Your task to perform on an android device: Open Google Chrome and open the bookmarks view Image 0: 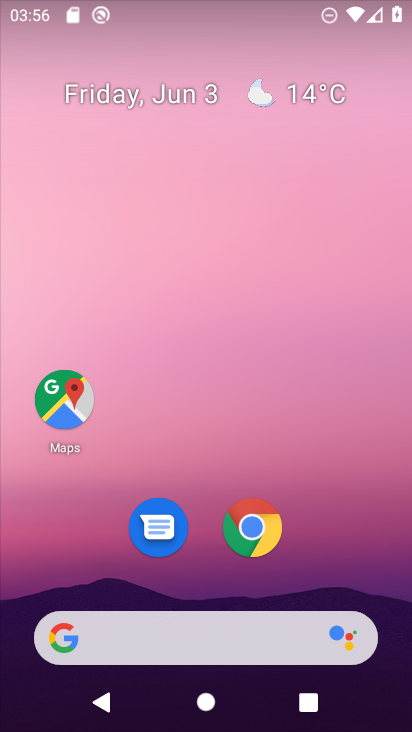
Step 0: click (252, 526)
Your task to perform on an android device: Open Google Chrome and open the bookmarks view Image 1: 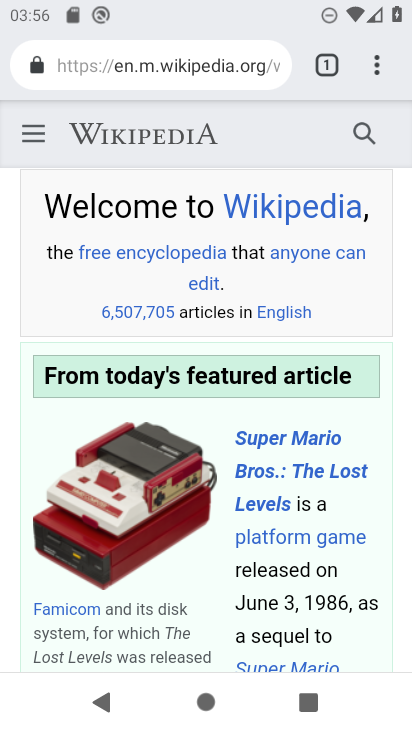
Step 1: click (377, 64)
Your task to perform on an android device: Open Google Chrome and open the bookmarks view Image 2: 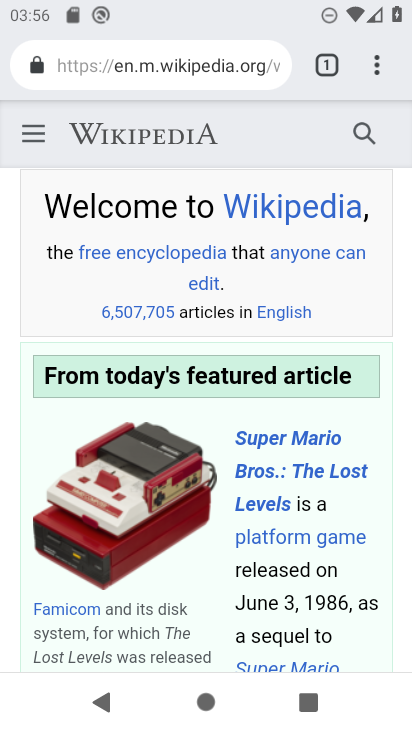
Step 2: click (377, 64)
Your task to perform on an android device: Open Google Chrome and open the bookmarks view Image 3: 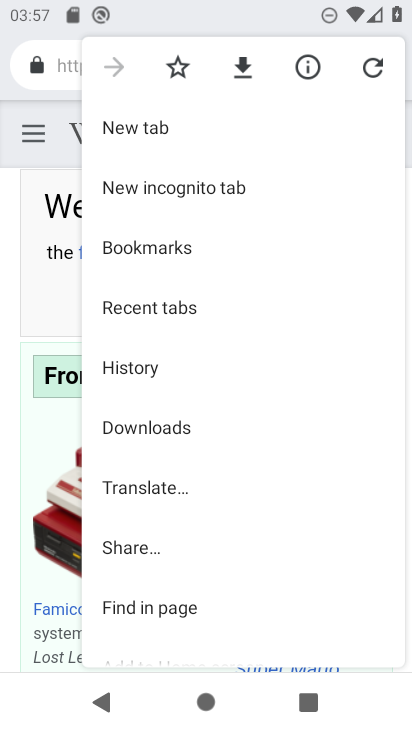
Step 3: click (157, 249)
Your task to perform on an android device: Open Google Chrome and open the bookmarks view Image 4: 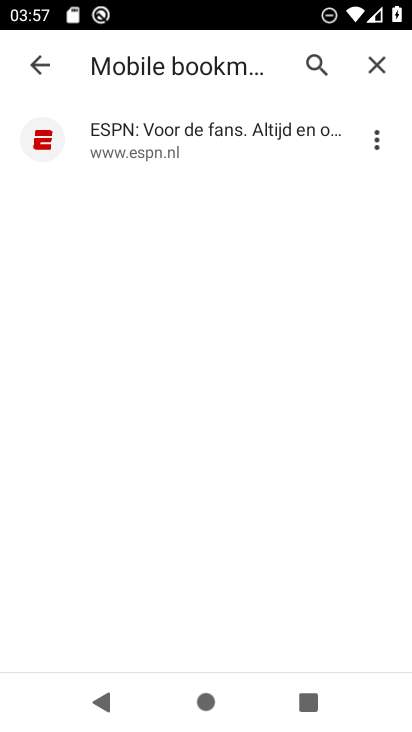
Step 4: task complete